Your task to perform on an android device: delete a single message in the gmail app Image 0: 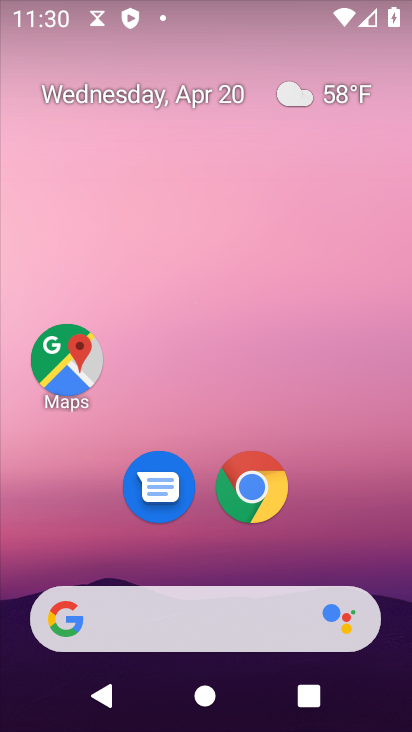
Step 0: drag from (334, 512) to (222, 29)
Your task to perform on an android device: delete a single message in the gmail app Image 1: 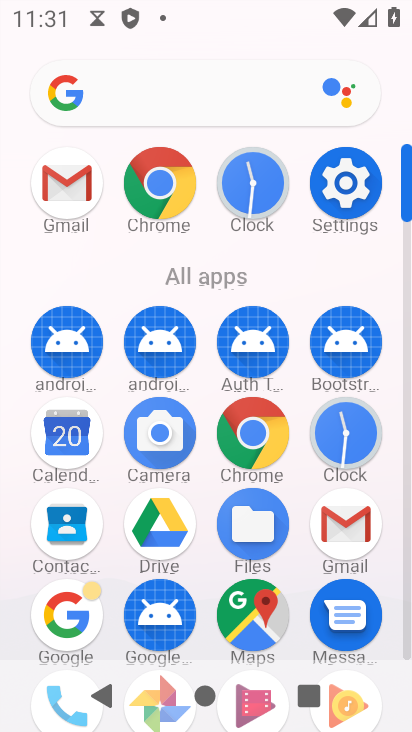
Step 1: click (344, 524)
Your task to perform on an android device: delete a single message in the gmail app Image 2: 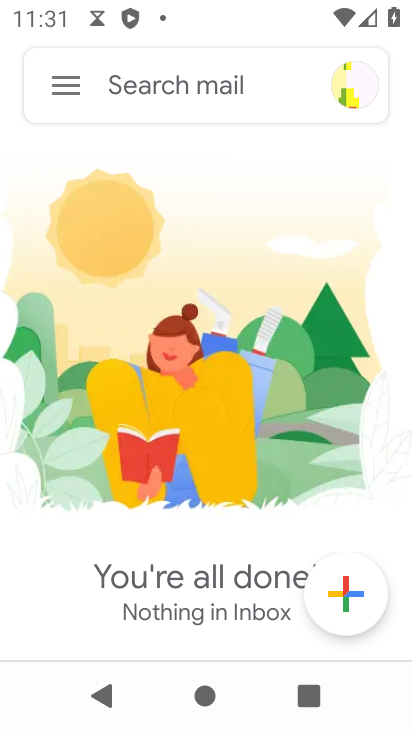
Step 2: click (61, 104)
Your task to perform on an android device: delete a single message in the gmail app Image 3: 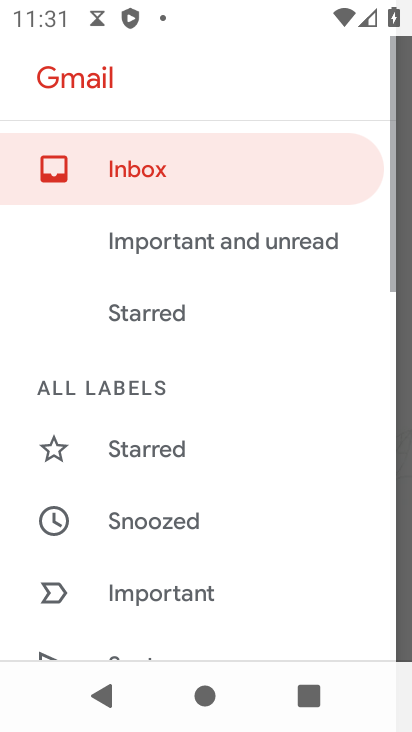
Step 3: drag from (216, 519) to (217, 259)
Your task to perform on an android device: delete a single message in the gmail app Image 4: 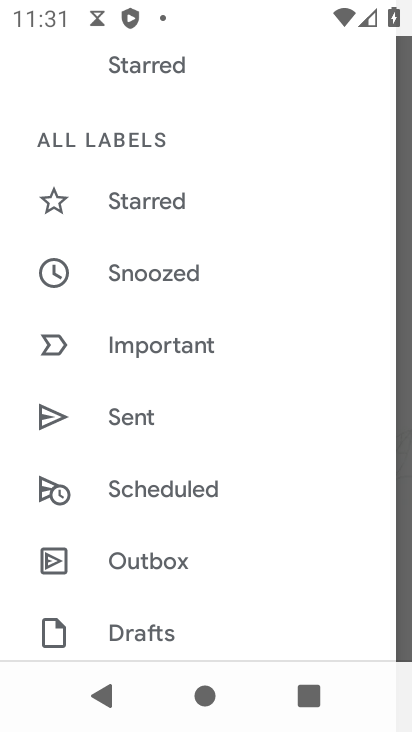
Step 4: drag from (286, 536) to (241, 214)
Your task to perform on an android device: delete a single message in the gmail app Image 5: 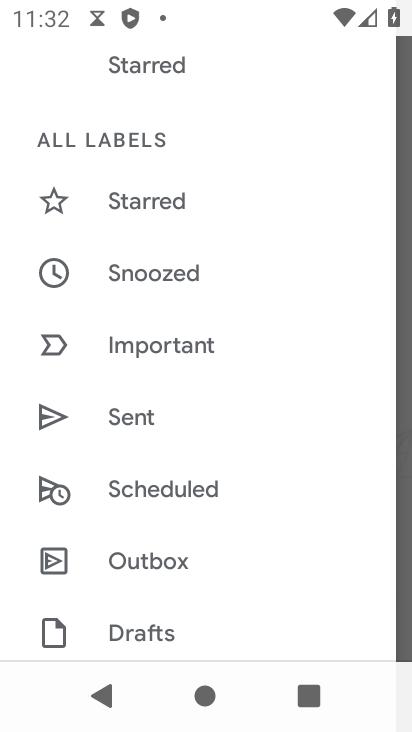
Step 5: drag from (233, 467) to (230, 190)
Your task to perform on an android device: delete a single message in the gmail app Image 6: 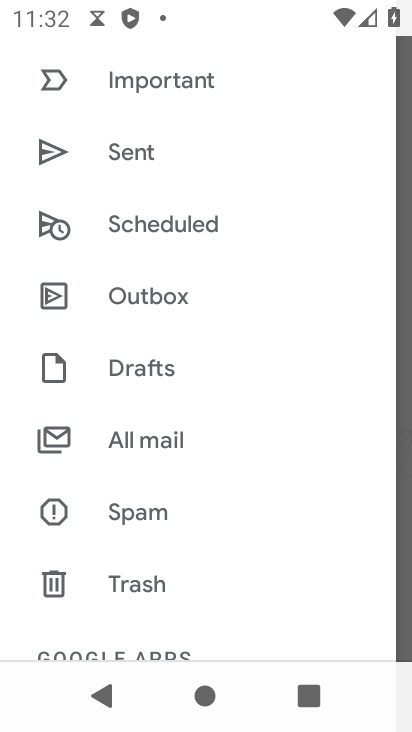
Step 6: click (151, 431)
Your task to perform on an android device: delete a single message in the gmail app Image 7: 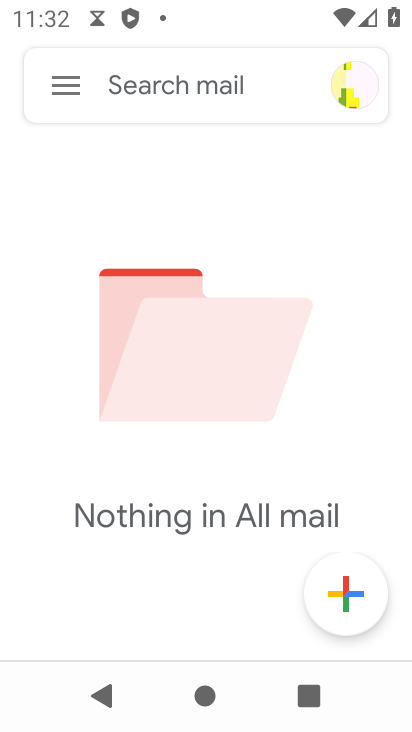
Step 7: click (62, 91)
Your task to perform on an android device: delete a single message in the gmail app Image 8: 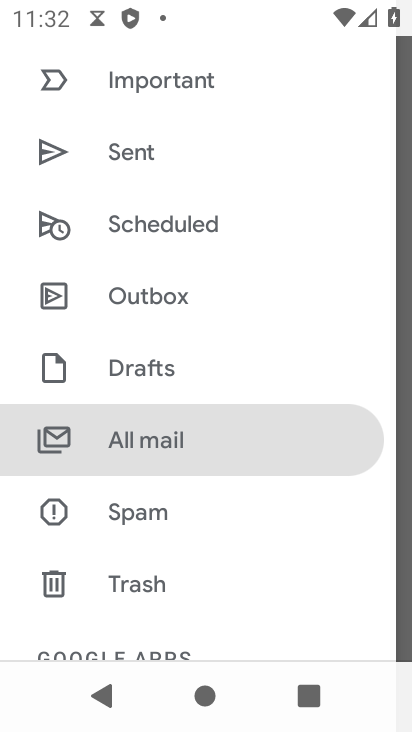
Step 8: drag from (244, 157) to (247, 608)
Your task to perform on an android device: delete a single message in the gmail app Image 9: 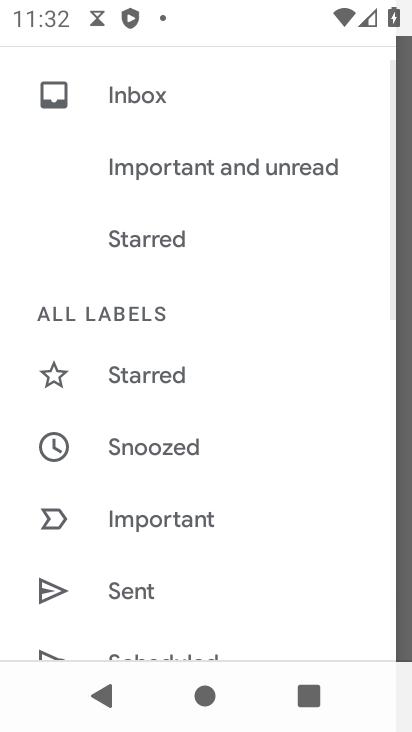
Step 9: drag from (229, 185) to (212, 499)
Your task to perform on an android device: delete a single message in the gmail app Image 10: 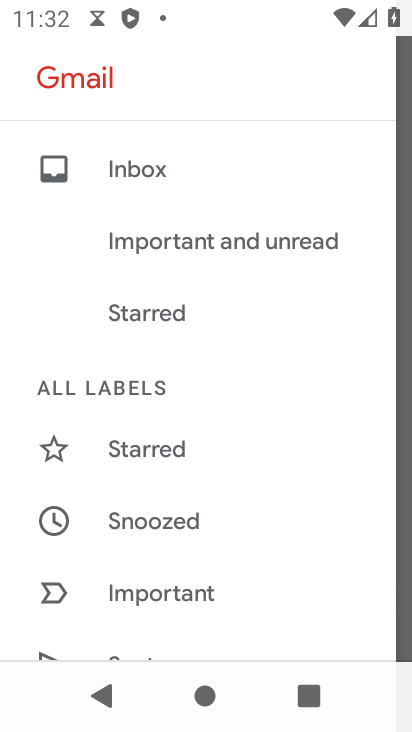
Step 10: click (208, 176)
Your task to perform on an android device: delete a single message in the gmail app Image 11: 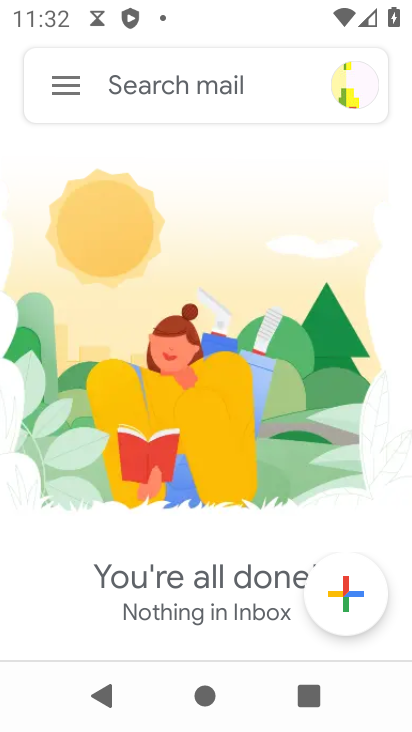
Step 11: task complete